Your task to perform on an android device: Show me the alarms in the clock app Image 0: 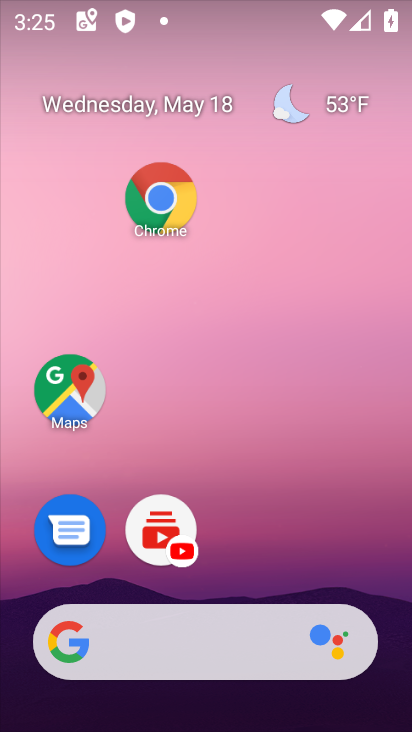
Step 0: drag from (373, 646) to (143, 185)
Your task to perform on an android device: Show me the alarms in the clock app Image 1: 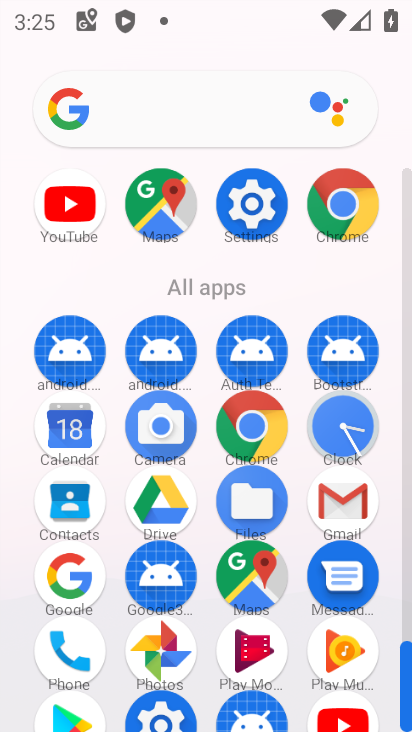
Step 1: click (348, 434)
Your task to perform on an android device: Show me the alarms in the clock app Image 2: 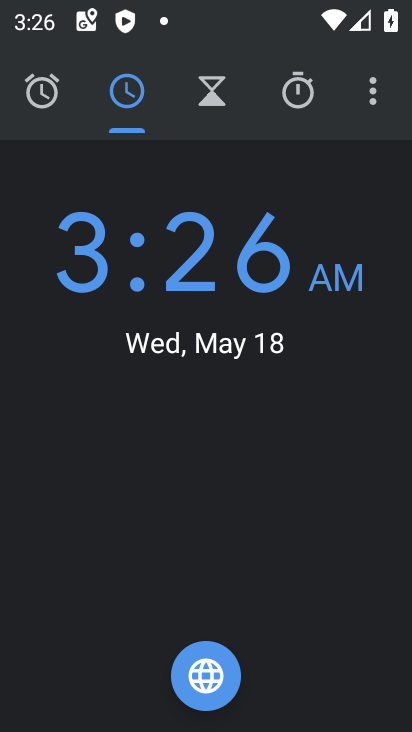
Step 2: click (38, 104)
Your task to perform on an android device: Show me the alarms in the clock app Image 3: 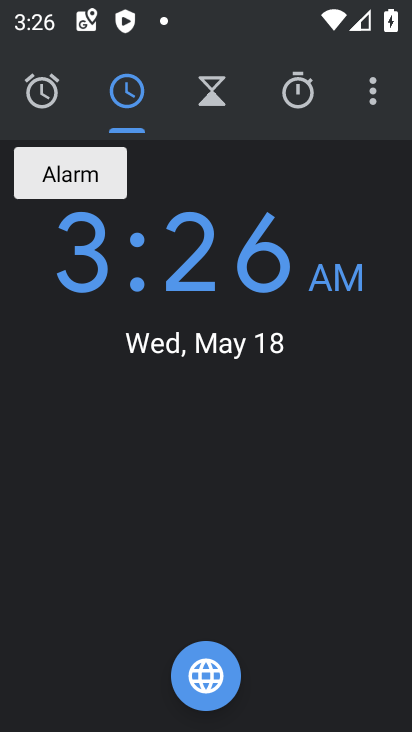
Step 3: click (37, 103)
Your task to perform on an android device: Show me the alarms in the clock app Image 4: 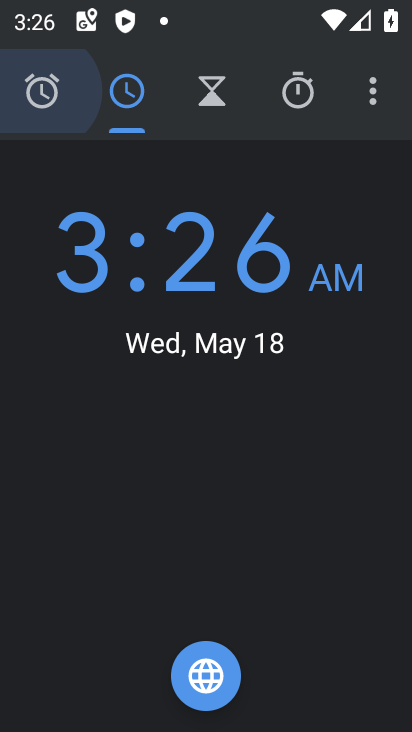
Step 4: click (37, 103)
Your task to perform on an android device: Show me the alarms in the clock app Image 5: 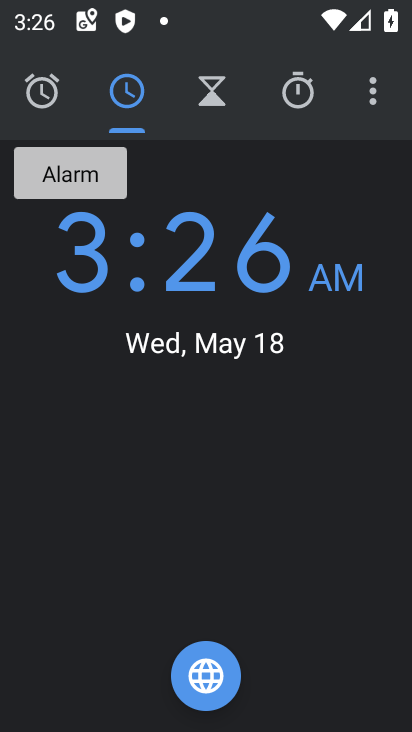
Step 5: click (37, 103)
Your task to perform on an android device: Show me the alarms in the clock app Image 6: 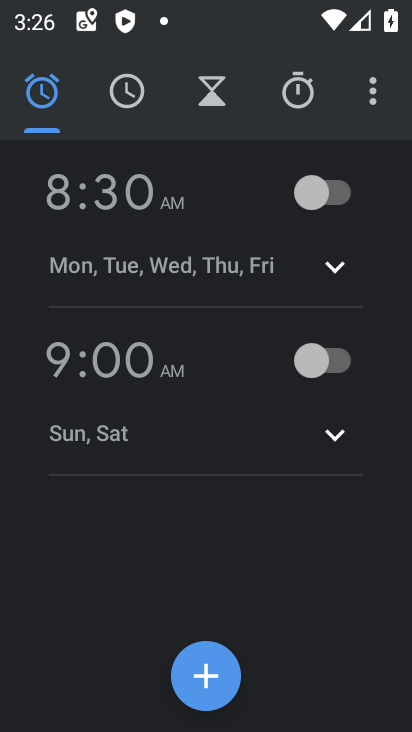
Step 6: click (38, 102)
Your task to perform on an android device: Show me the alarms in the clock app Image 7: 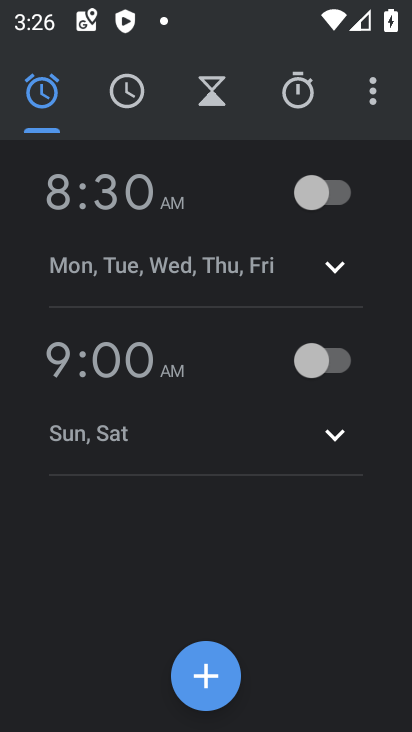
Step 7: click (321, 201)
Your task to perform on an android device: Show me the alarms in the clock app Image 8: 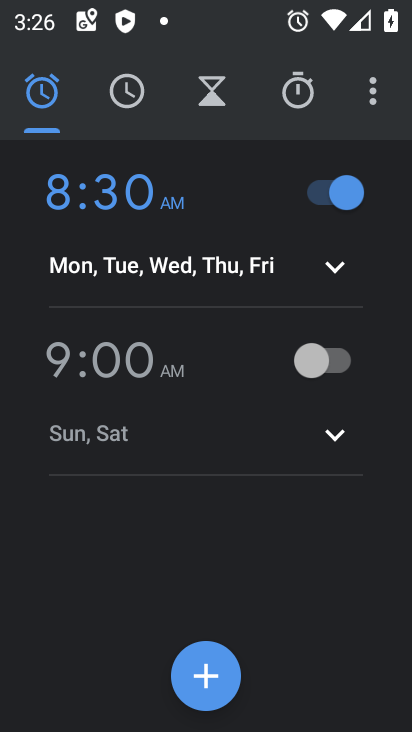
Step 8: task complete